Your task to perform on an android device: Go to Android settings Image 0: 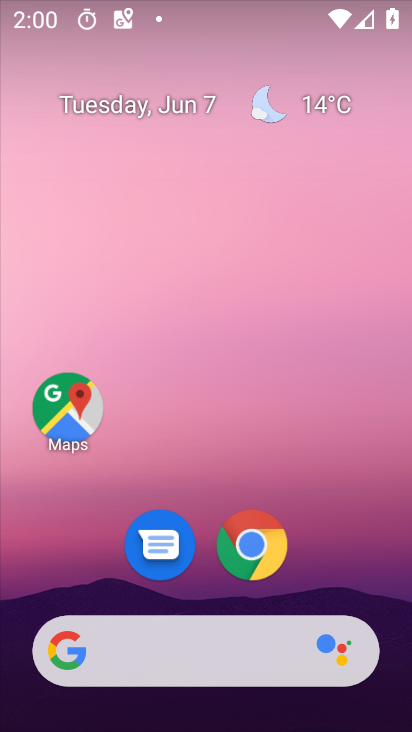
Step 0: drag from (330, 537) to (287, 74)
Your task to perform on an android device: Go to Android settings Image 1: 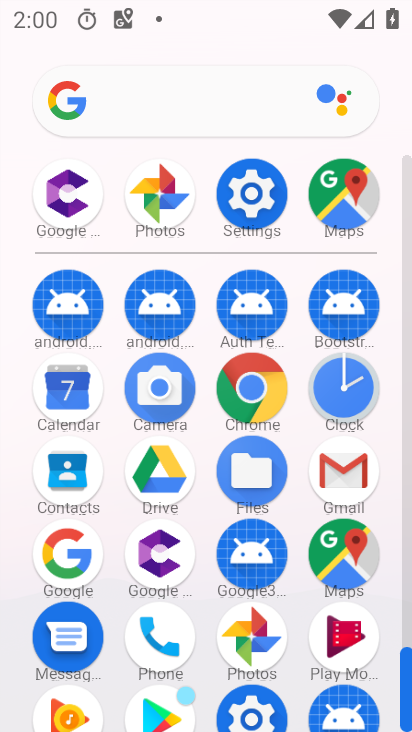
Step 1: click (253, 226)
Your task to perform on an android device: Go to Android settings Image 2: 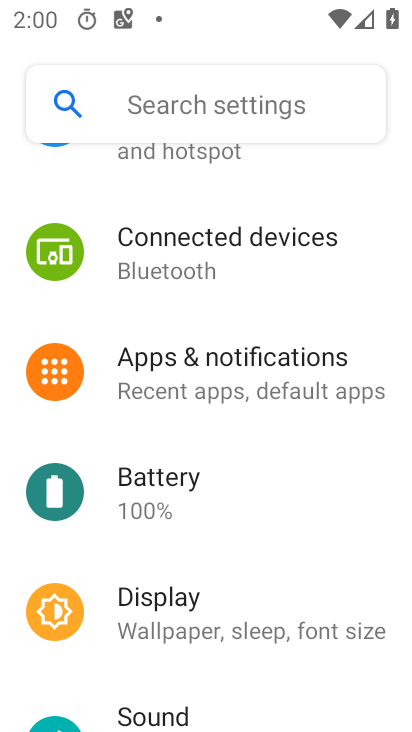
Step 2: drag from (237, 587) to (289, 52)
Your task to perform on an android device: Go to Android settings Image 3: 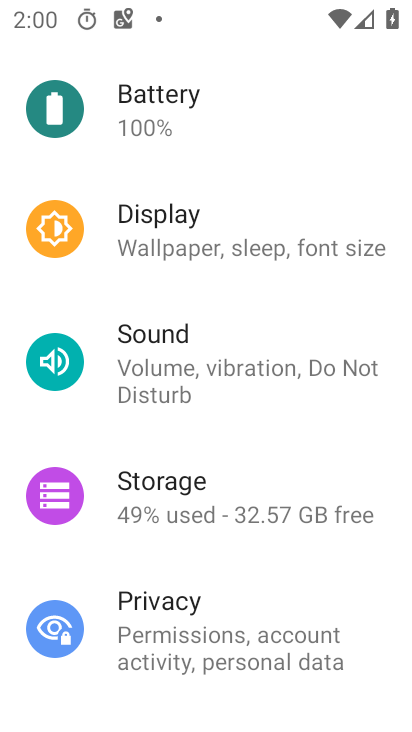
Step 3: drag from (244, 449) to (247, 333)
Your task to perform on an android device: Go to Android settings Image 4: 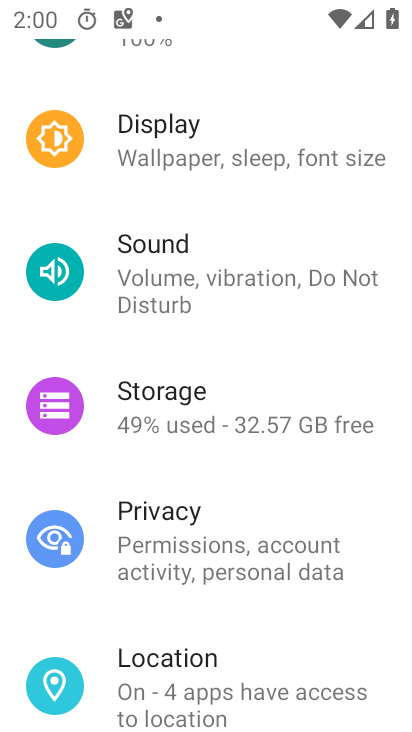
Step 4: drag from (252, 613) to (213, 17)
Your task to perform on an android device: Go to Android settings Image 5: 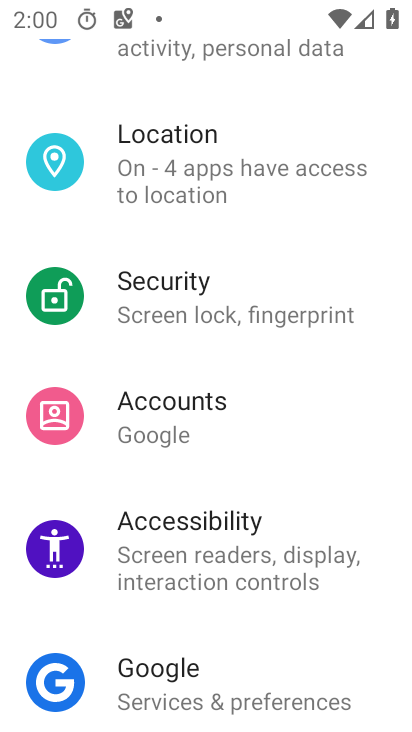
Step 5: drag from (272, 548) to (234, 51)
Your task to perform on an android device: Go to Android settings Image 6: 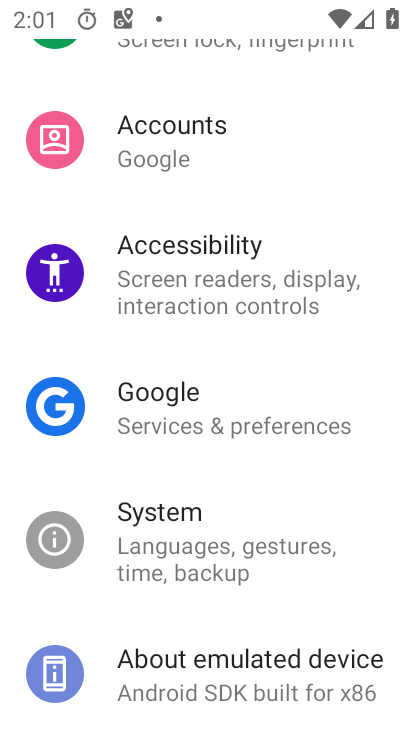
Step 6: click (241, 682)
Your task to perform on an android device: Go to Android settings Image 7: 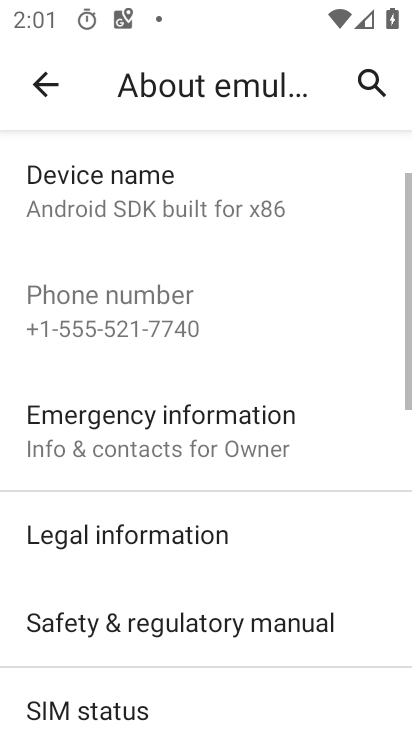
Step 7: drag from (248, 597) to (219, 165)
Your task to perform on an android device: Go to Android settings Image 8: 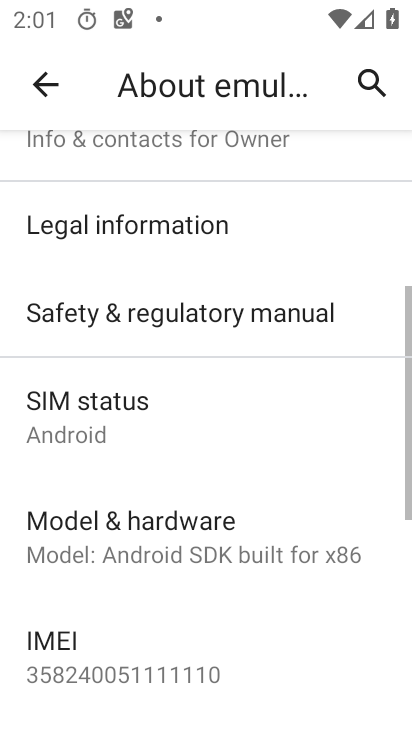
Step 8: drag from (211, 532) to (208, 117)
Your task to perform on an android device: Go to Android settings Image 9: 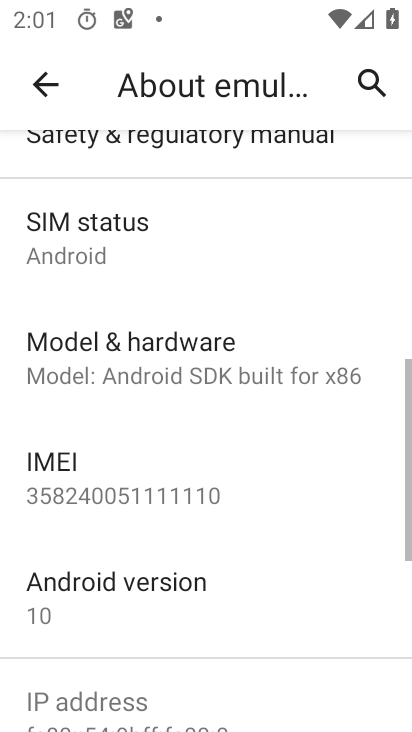
Step 9: click (184, 595)
Your task to perform on an android device: Go to Android settings Image 10: 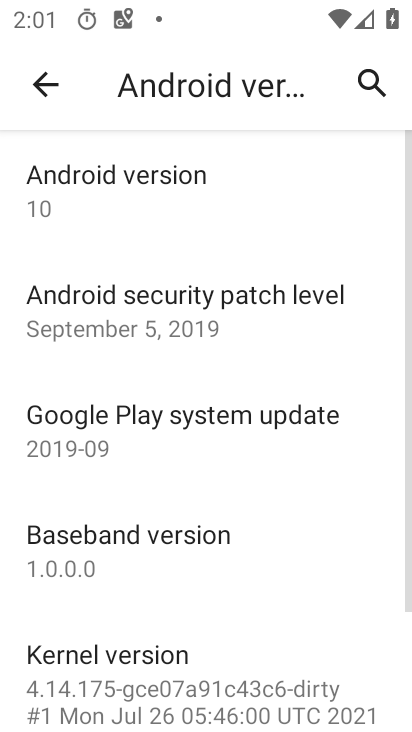
Step 10: task complete